Your task to perform on an android device: Empty the shopping cart on costco. Search for "usb-c to usb-b" on costco, select the first entry, and add it to the cart. Image 0: 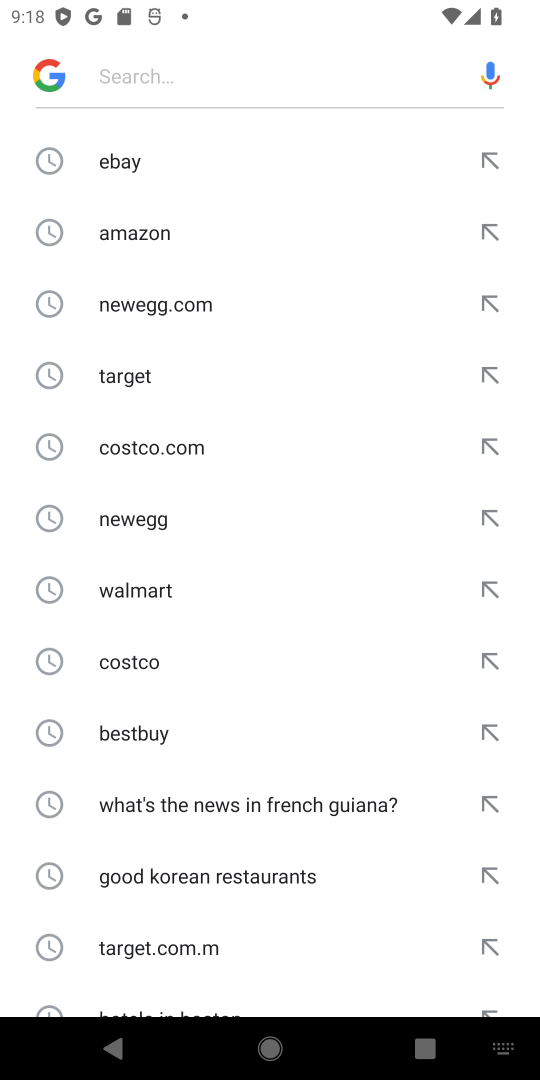
Step 0: press home button
Your task to perform on an android device: Empty the shopping cart on costco. Search for "usb-c to usb-b" on costco, select the first entry, and add it to the cart. Image 1: 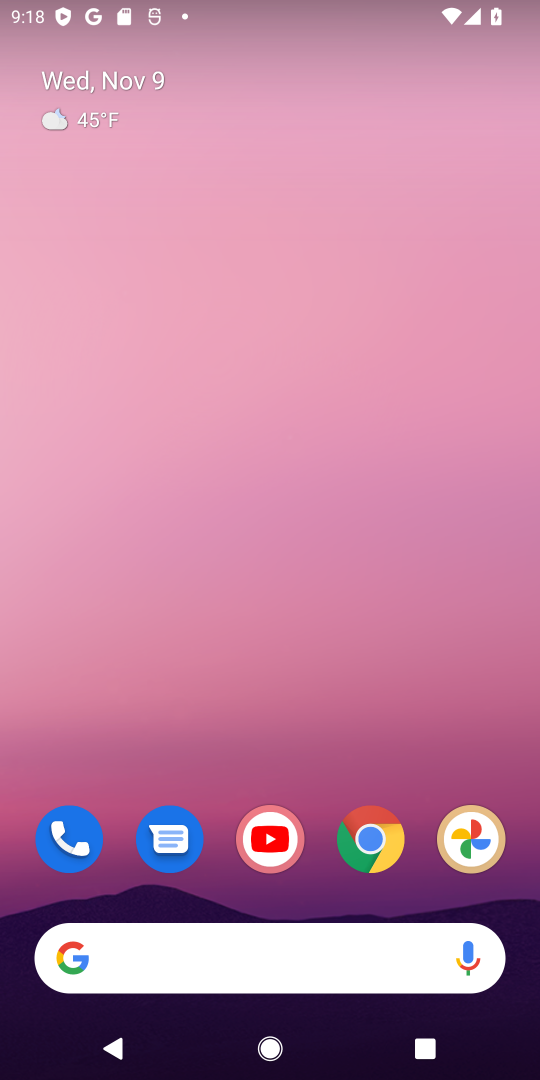
Step 1: drag from (114, 838) to (171, 273)
Your task to perform on an android device: Empty the shopping cart on costco. Search for "usb-c to usb-b" on costco, select the first entry, and add it to the cart. Image 2: 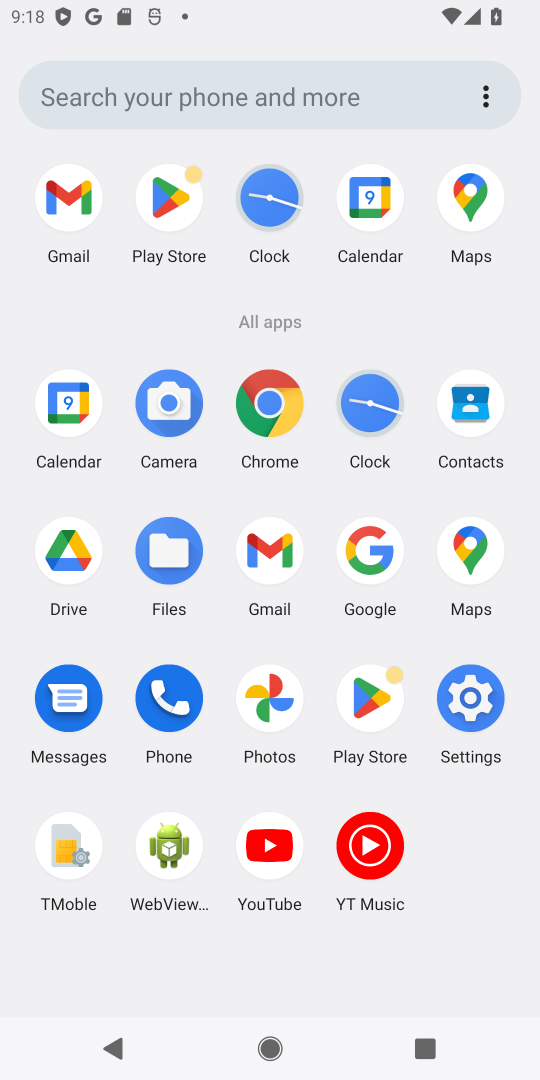
Step 2: click (272, 394)
Your task to perform on an android device: Empty the shopping cart on costco. Search for "usb-c to usb-b" on costco, select the first entry, and add it to the cart. Image 3: 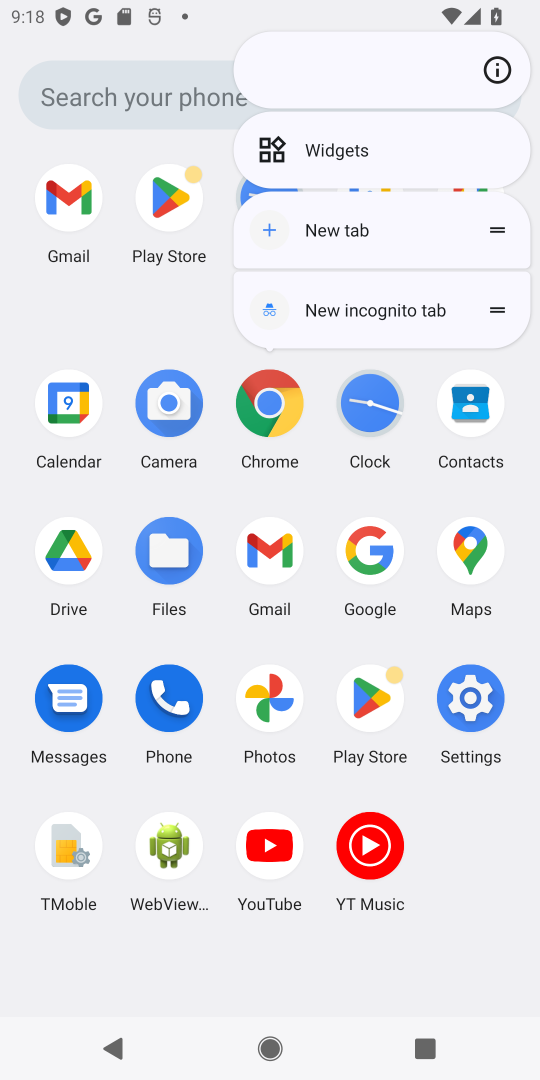
Step 3: click (272, 392)
Your task to perform on an android device: Empty the shopping cart on costco. Search for "usb-c to usb-b" on costco, select the first entry, and add it to the cart. Image 4: 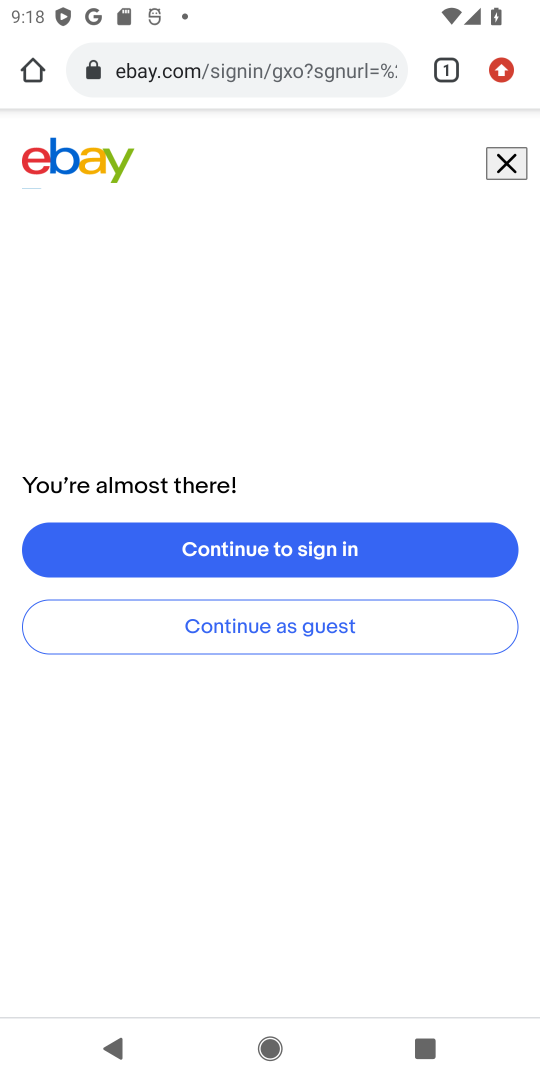
Step 4: click (203, 66)
Your task to perform on an android device: Empty the shopping cart on costco. Search for "usb-c to usb-b" on costco, select the first entry, and add it to the cart. Image 5: 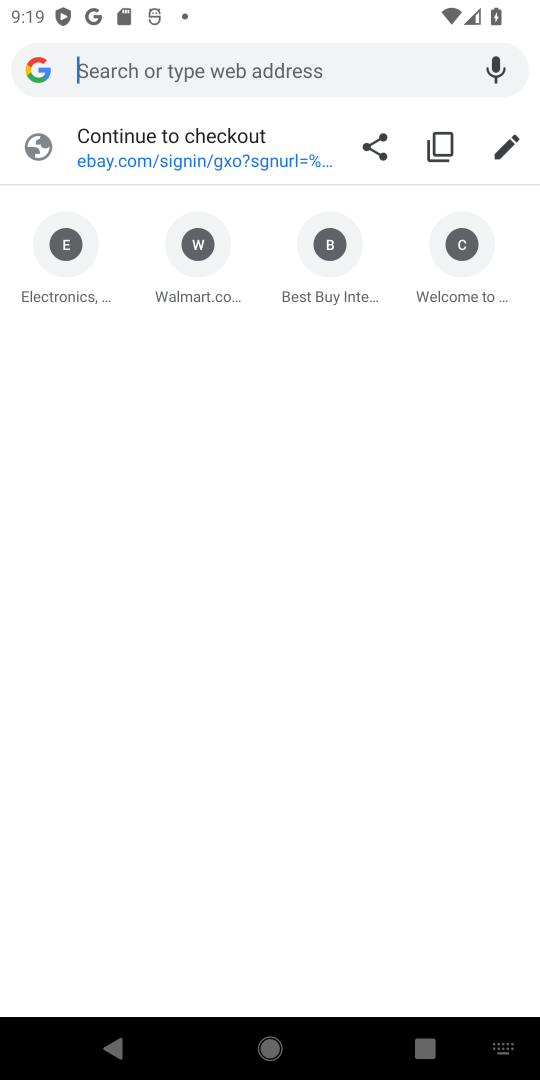
Step 5: type "costco"
Your task to perform on an android device: Empty the shopping cart on costco. Search for "usb-c to usb-b" on costco, select the first entry, and add it to the cart. Image 6: 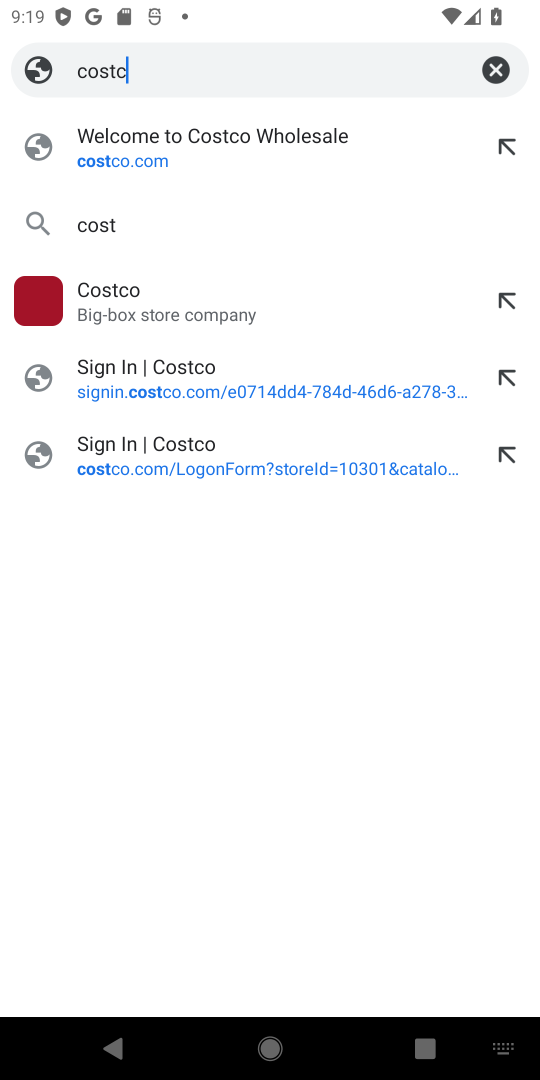
Step 6: press enter
Your task to perform on an android device: Empty the shopping cart on costco. Search for "usb-c to usb-b" on costco, select the first entry, and add it to the cart. Image 7: 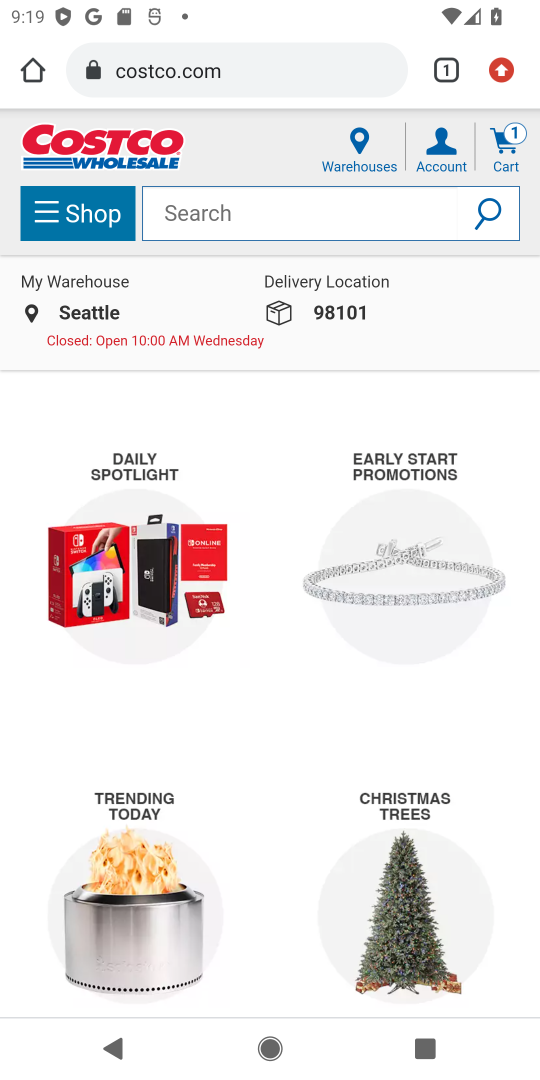
Step 7: click (211, 207)
Your task to perform on an android device: Empty the shopping cart on costco. Search for "usb-c to usb-b" on costco, select the first entry, and add it to the cart. Image 8: 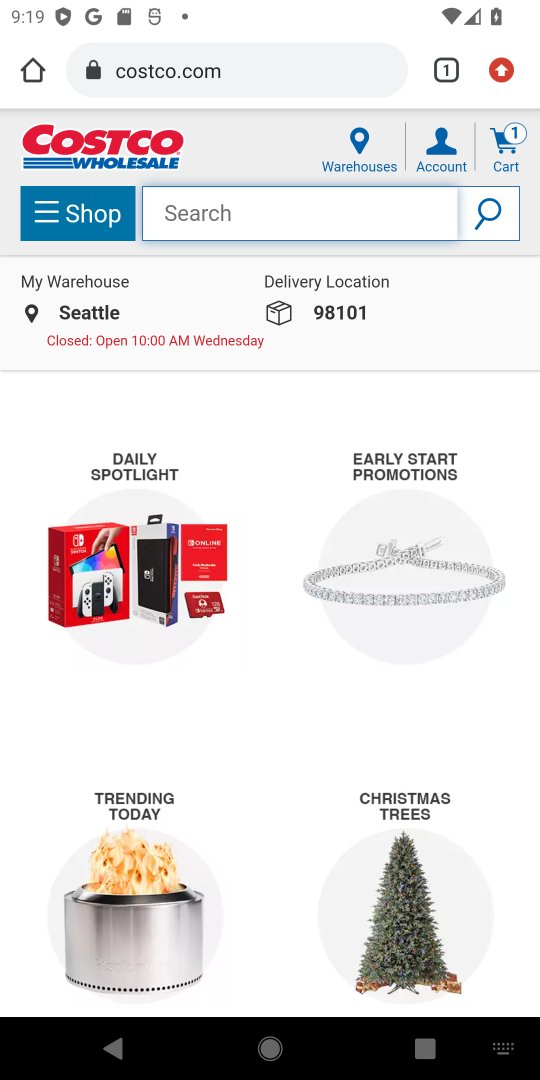
Step 8: press enter
Your task to perform on an android device: Empty the shopping cart on costco. Search for "usb-c to usb-b" on costco, select the first entry, and add it to the cart. Image 9: 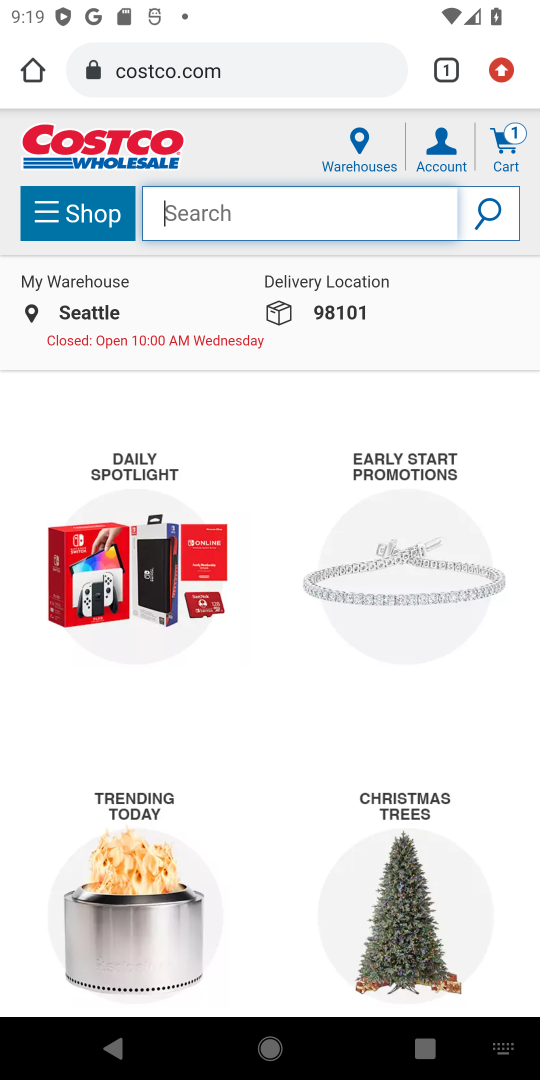
Step 9: type "usb-c to usb-b"
Your task to perform on an android device: Empty the shopping cart on costco. Search for "usb-c to usb-b" on costco, select the first entry, and add it to the cart. Image 10: 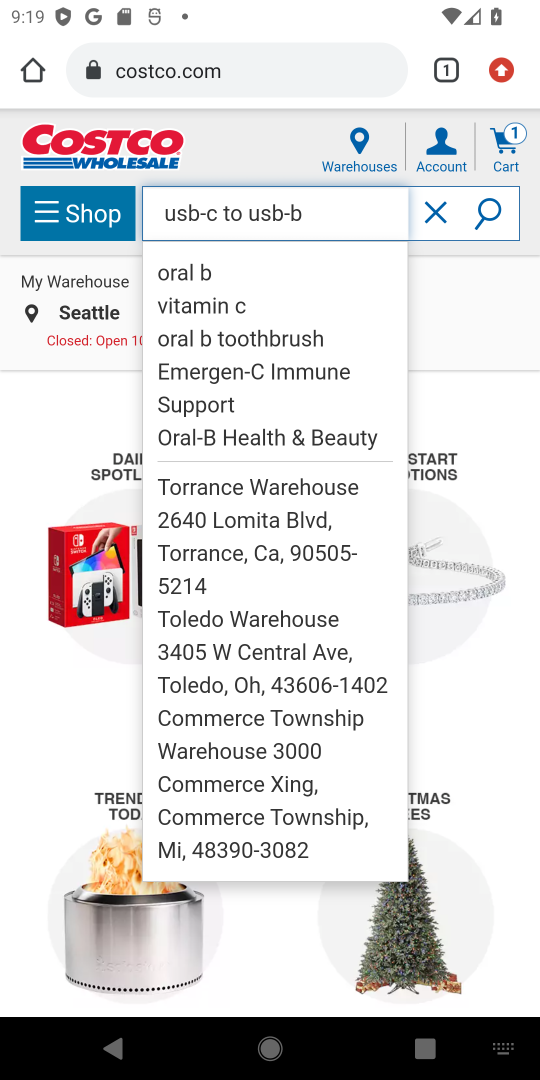
Step 10: press enter
Your task to perform on an android device: Empty the shopping cart on costco. Search for "usb-c to usb-b" on costco, select the first entry, and add it to the cart. Image 11: 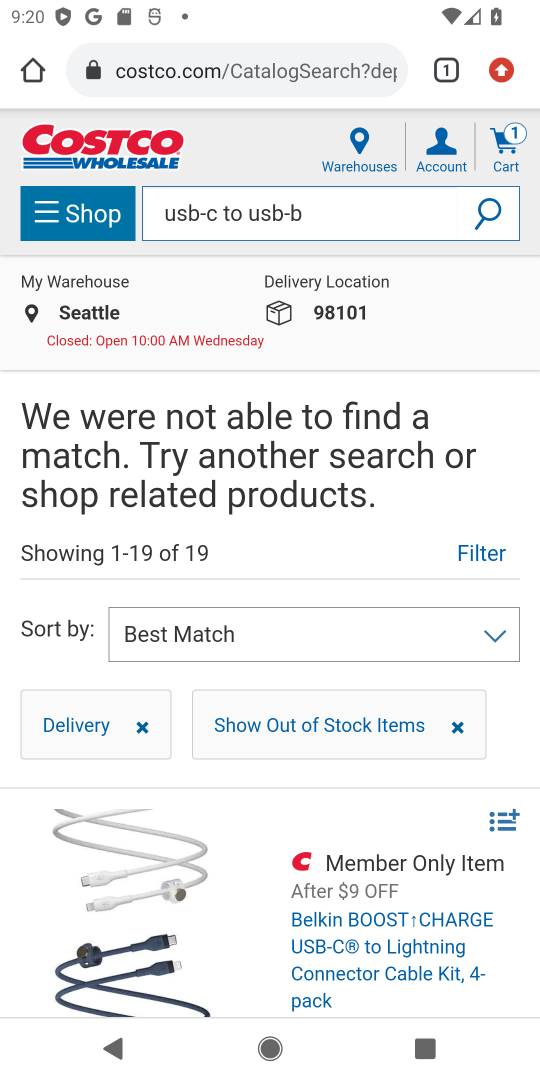
Step 11: drag from (141, 633) to (178, 424)
Your task to perform on an android device: Empty the shopping cart on costco. Search for "usb-c to usb-b" on costco, select the first entry, and add it to the cart. Image 12: 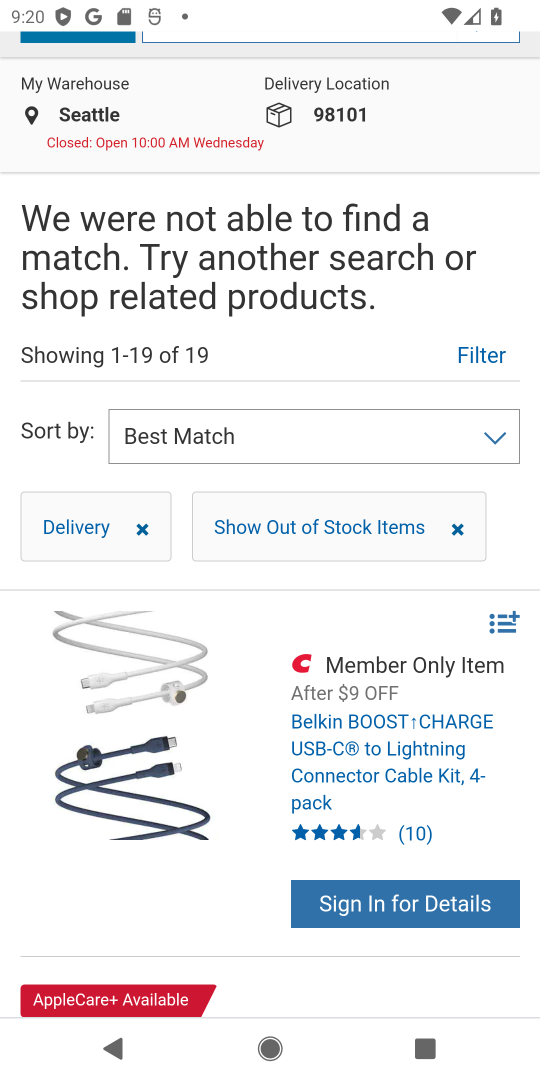
Step 12: click (366, 670)
Your task to perform on an android device: Empty the shopping cart on costco. Search for "usb-c to usb-b" on costco, select the first entry, and add it to the cart. Image 13: 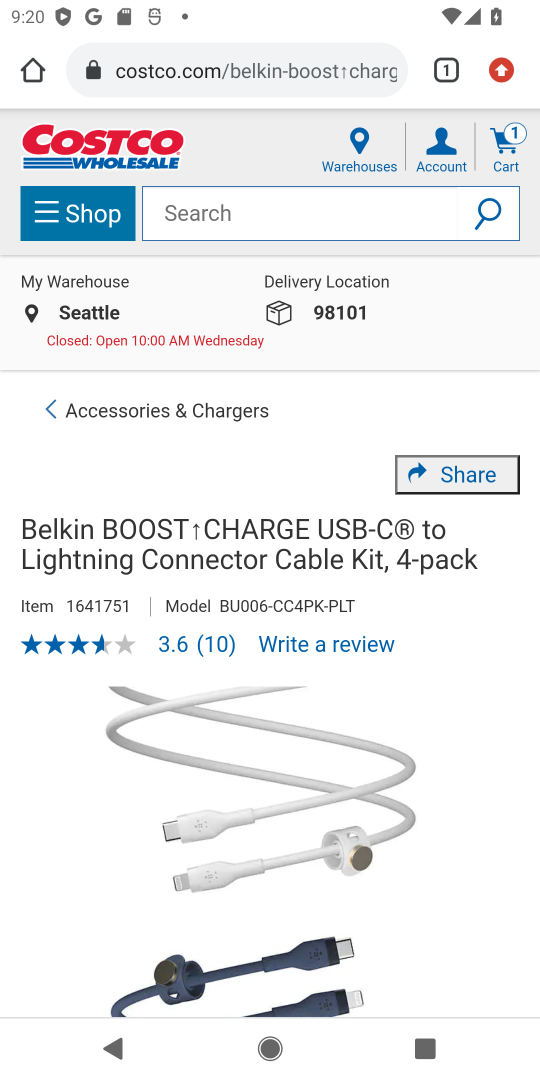
Step 13: drag from (345, 740) to (328, 377)
Your task to perform on an android device: Empty the shopping cart on costco. Search for "usb-c to usb-b" on costco, select the first entry, and add it to the cart. Image 14: 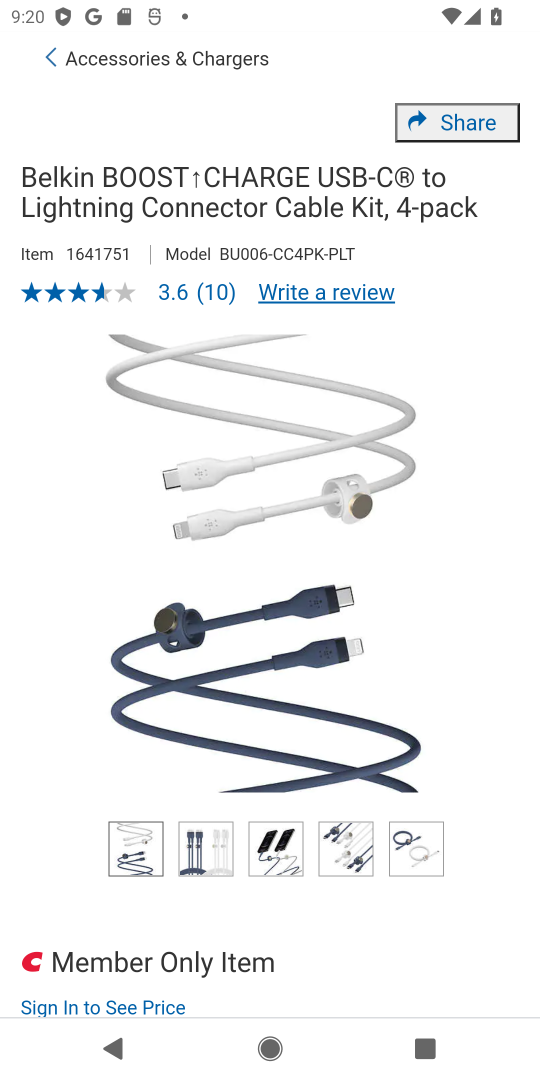
Step 14: drag from (341, 656) to (347, 332)
Your task to perform on an android device: Empty the shopping cart on costco. Search for "usb-c to usb-b" on costco, select the first entry, and add it to the cart. Image 15: 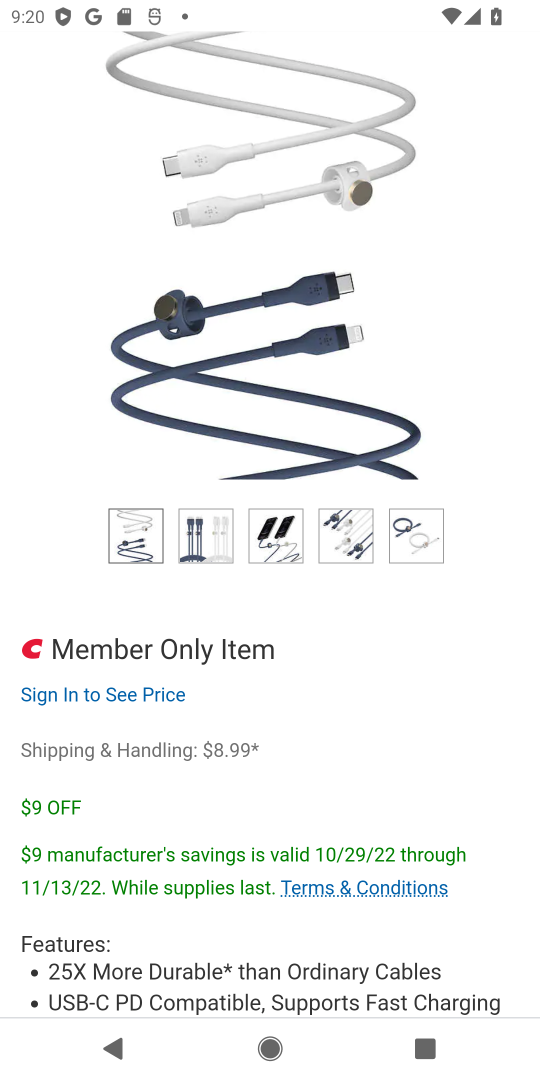
Step 15: drag from (266, 736) to (265, 322)
Your task to perform on an android device: Empty the shopping cart on costco. Search for "usb-c to usb-b" on costco, select the first entry, and add it to the cart. Image 16: 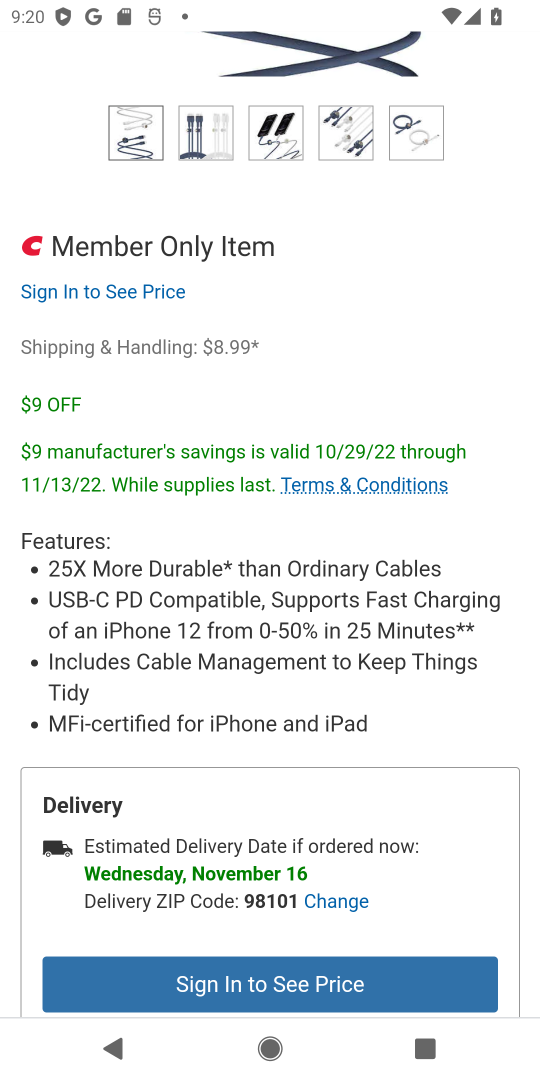
Step 16: drag from (288, 876) to (294, 421)
Your task to perform on an android device: Empty the shopping cart on costco. Search for "usb-c to usb-b" on costco, select the first entry, and add it to the cart. Image 17: 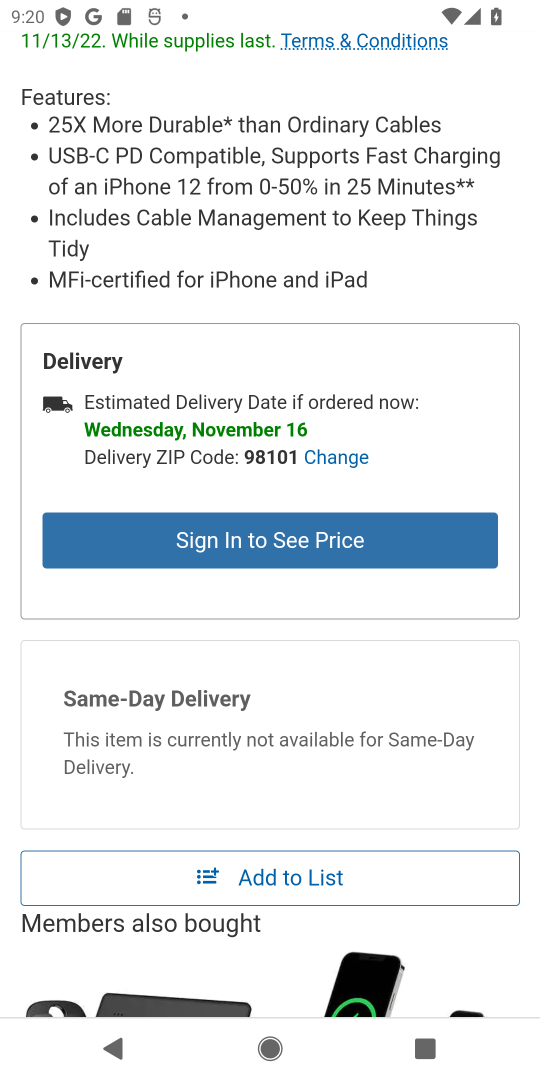
Step 17: click (304, 878)
Your task to perform on an android device: Empty the shopping cart on costco. Search for "usb-c to usb-b" on costco, select the first entry, and add it to the cart. Image 18: 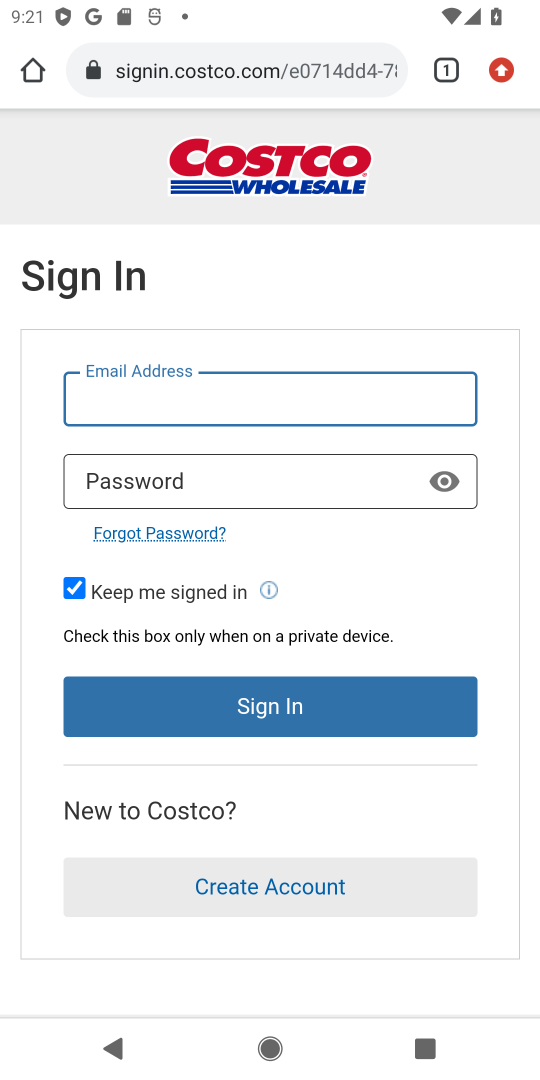
Step 18: task complete